Your task to perform on an android device: empty trash in google photos Image 0: 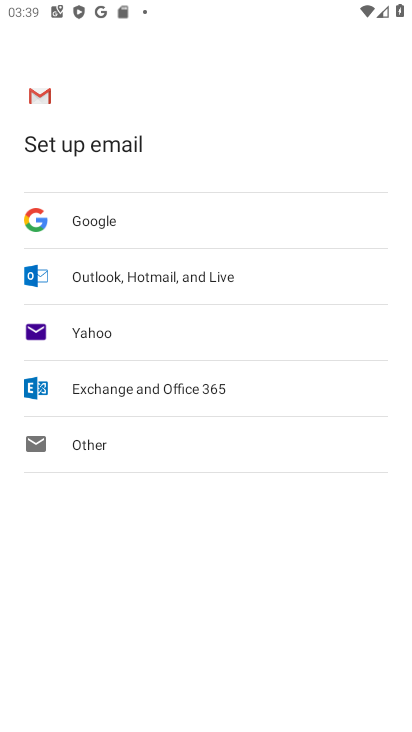
Step 0: press home button
Your task to perform on an android device: empty trash in google photos Image 1: 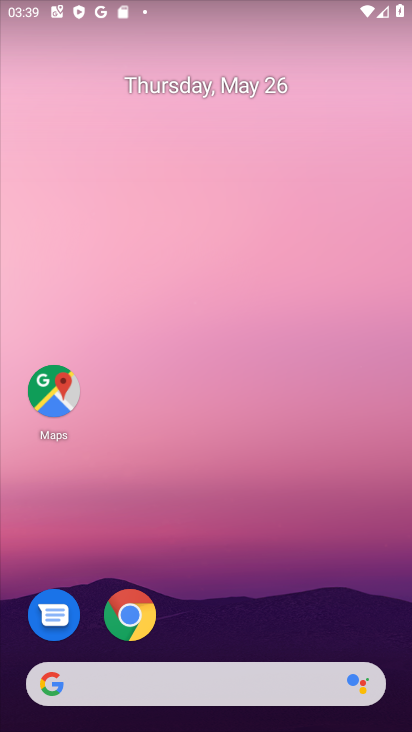
Step 1: drag from (203, 606) to (253, 97)
Your task to perform on an android device: empty trash in google photos Image 2: 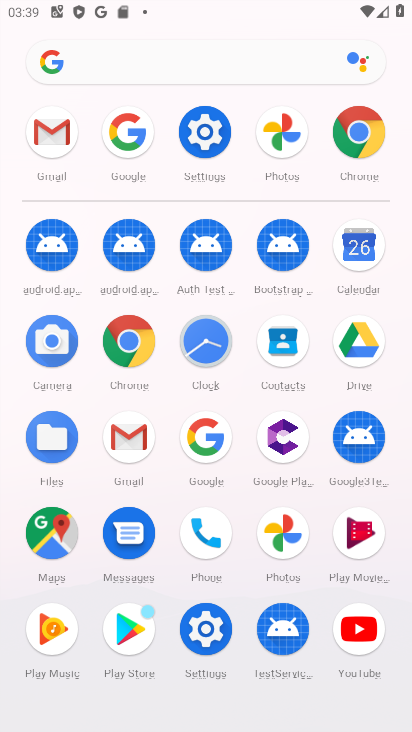
Step 2: click (265, 548)
Your task to perform on an android device: empty trash in google photos Image 3: 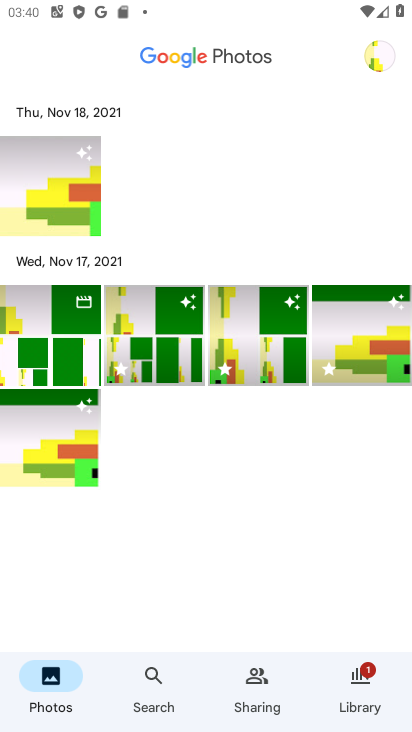
Step 3: click (355, 706)
Your task to perform on an android device: empty trash in google photos Image 4: 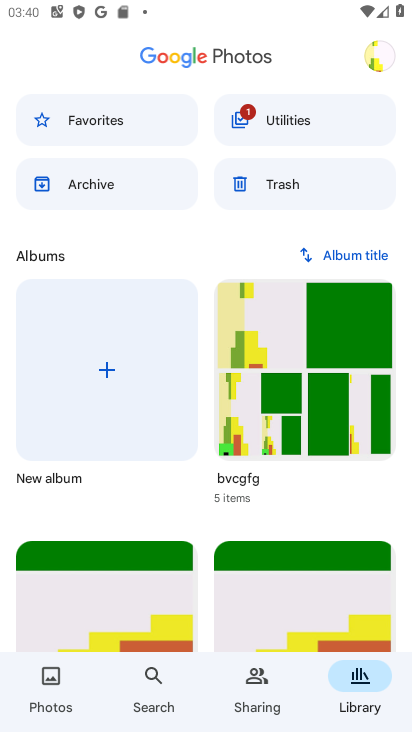
Step 4: click (293, 178)
Your task to perform on an android device: empty trash in google photos Image 5: 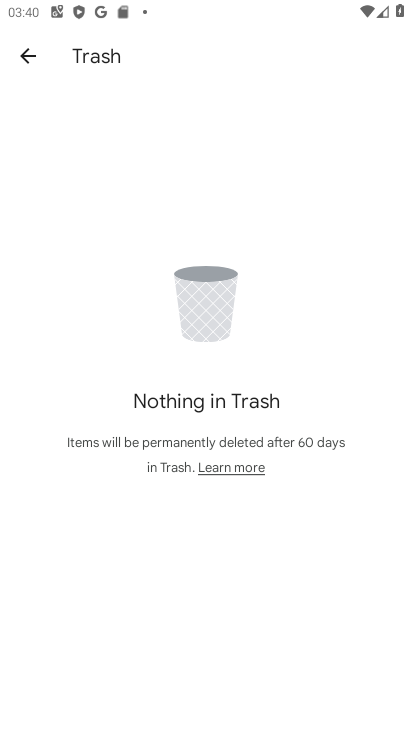
Step 5: task complete